Your task to perform on an android device: Open Google Chrome Image 0: 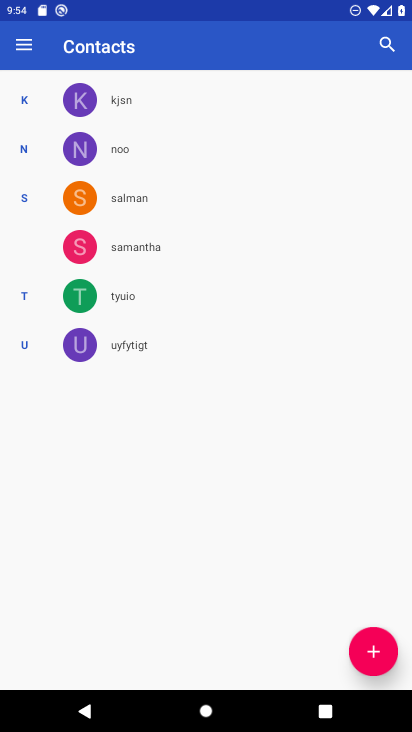
Step 0: press home button
Your task to perform on an android device: Open Google Chrome Image 1: 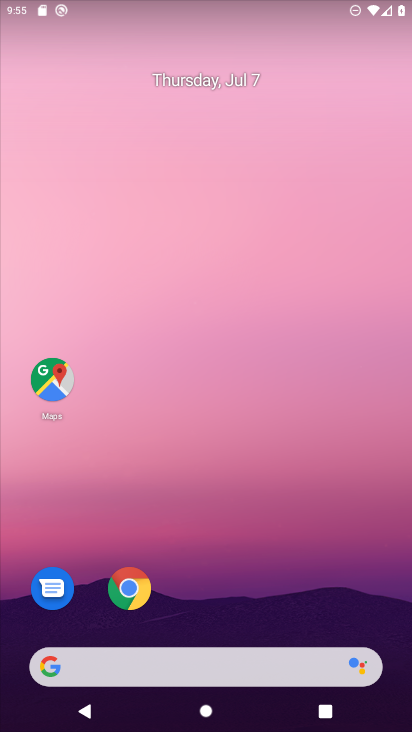
Step 1: click (137, 593)
Your task to perform on an android device: Open Google Chrome Image 2: 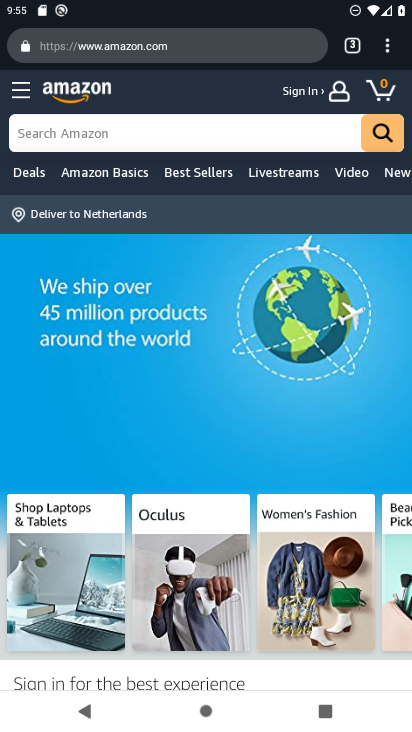
Step 2: click (137, 593)
Your task to perform on an android device: Open Google Chrome Image 3: 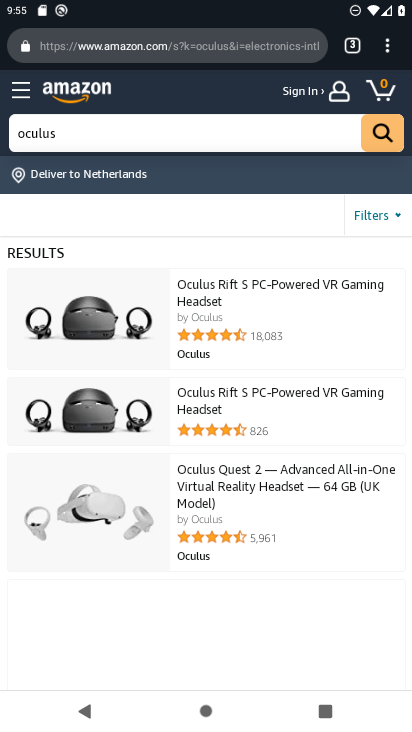
Step 3: task complete